Your task to perform on an android device: Add razer blackwidow to the cart on bestbuy Image 0: 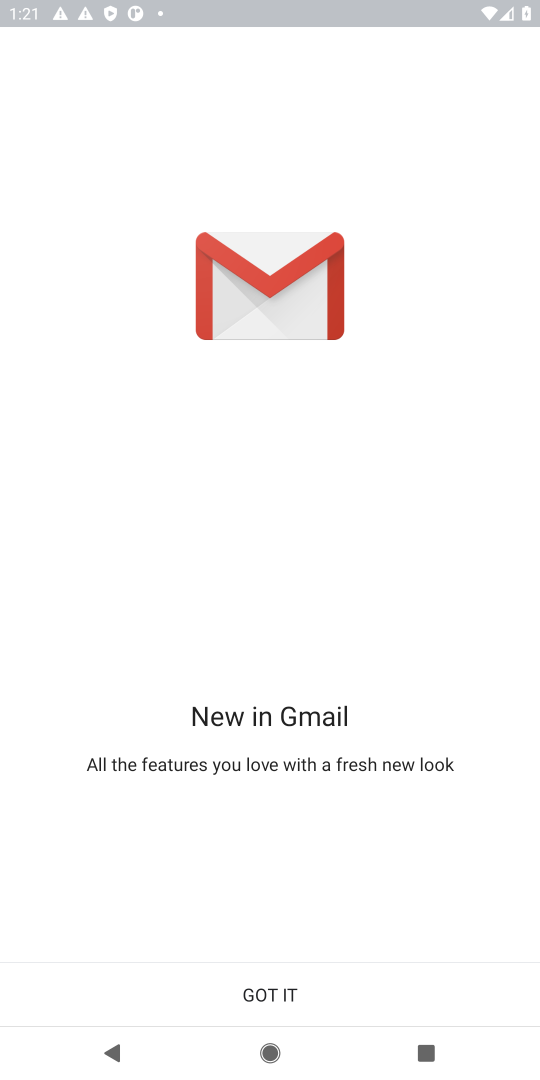
Step 0: press home button
Your task to perform on an android device: Add razer blackwidow to the cart on bestbuy Image 1: 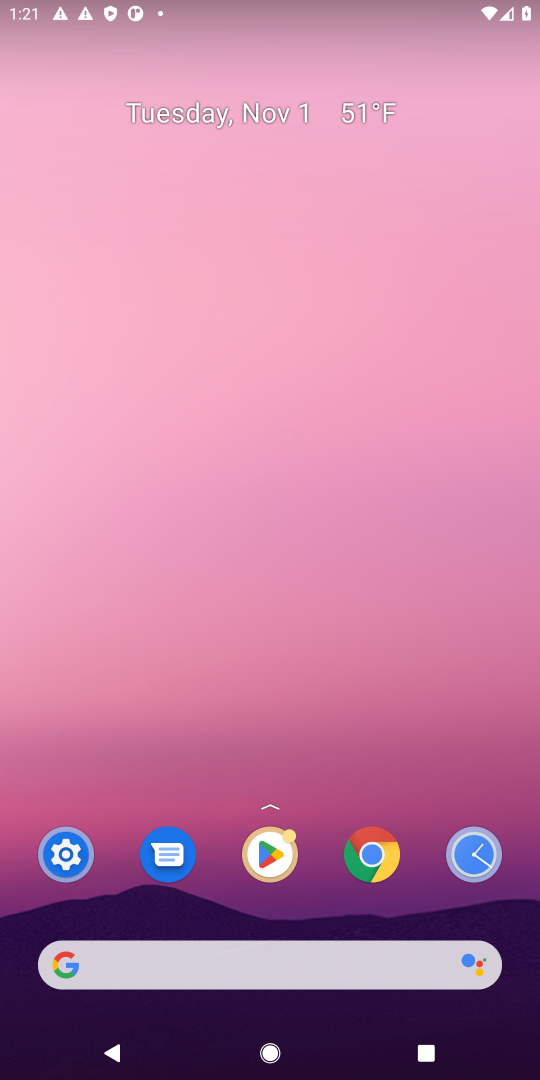
Step 1: click (191, 951)
Your task to perform on an android device: Add razer blackwidow to the cart on bestbuy Image 2: 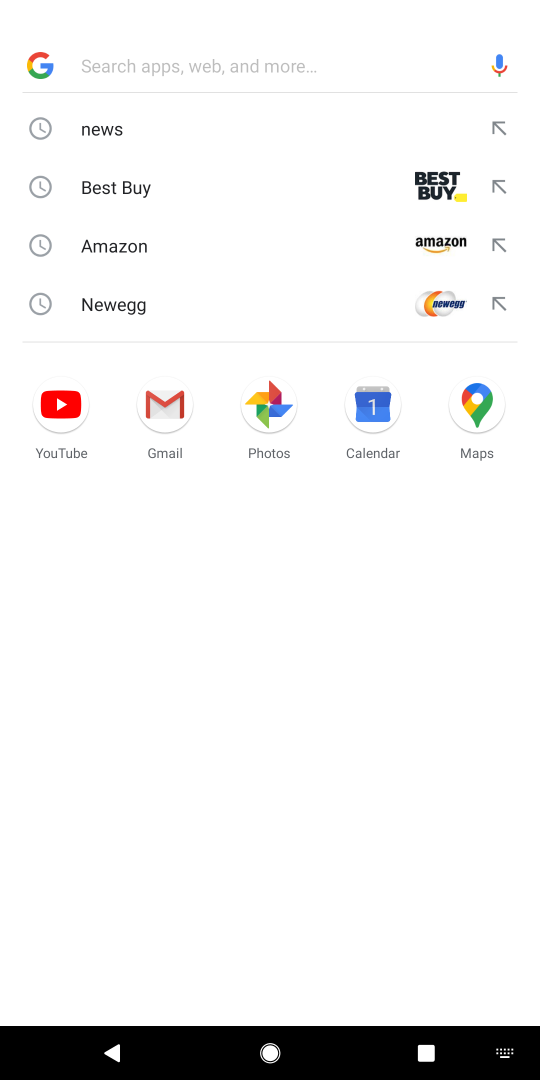
Step 2: type "bestbuy"
Your task to perform on an android device: Add razer blackwidow to the cart on bestbuy Image 3: 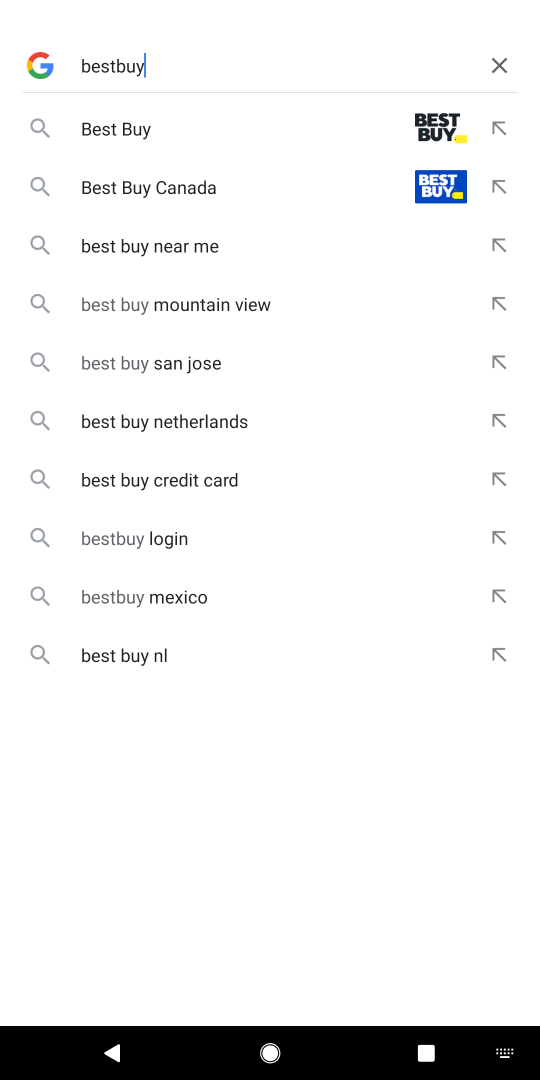
Step 3: click (122, 126)
Your task to perform on an android device: Add razer blackwidow to the cart on bestbuy Image 4: 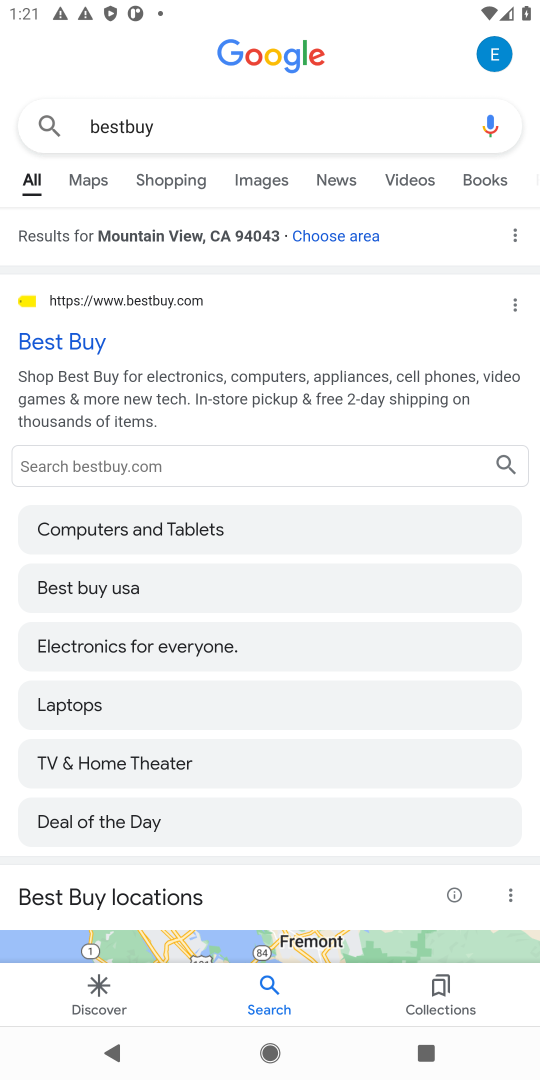
Step 4: click (66, 334)
Your task to perform on an android device: Add razer blackwidow to the cart on bestbuy Image 5: 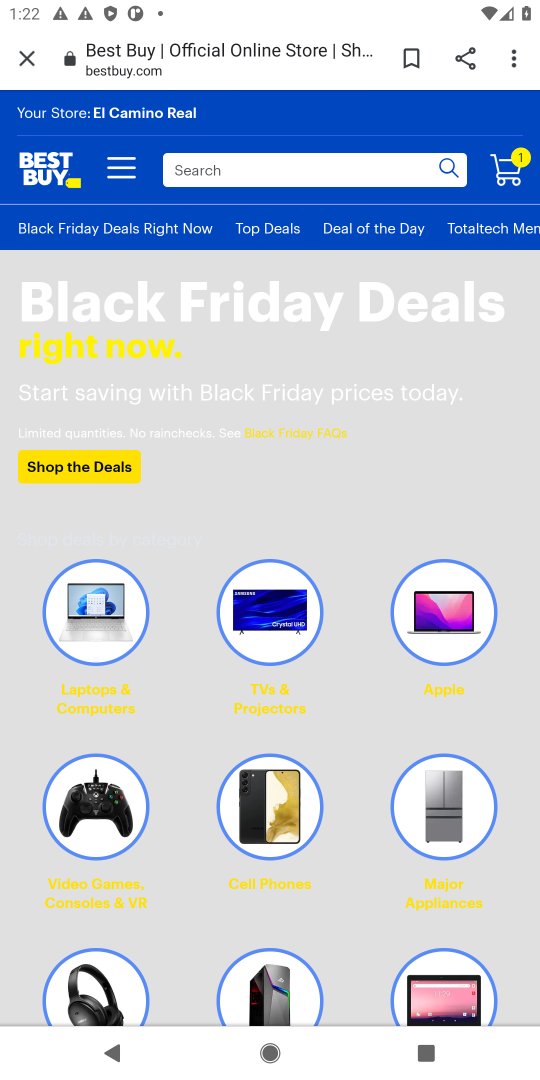
Step 5: click (313, 172)
Your task to perform on an android device: Add razer blackwidow to the cart on bestbuy Image 6: 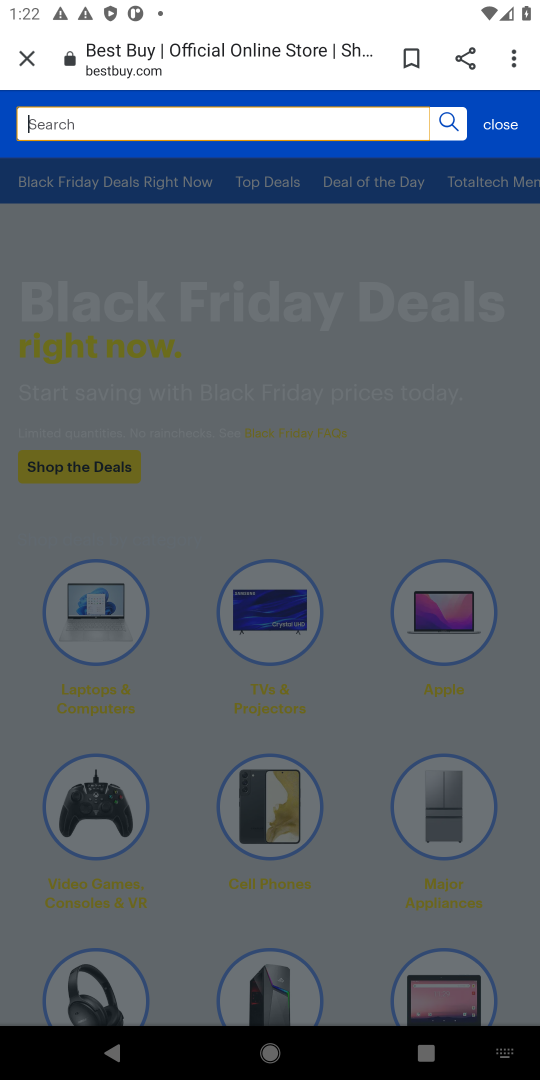
Step 6: type "razer blackwi"
Your task to perform on an android device: Add razer blackwidow to the cart on bestbuy Image 7: 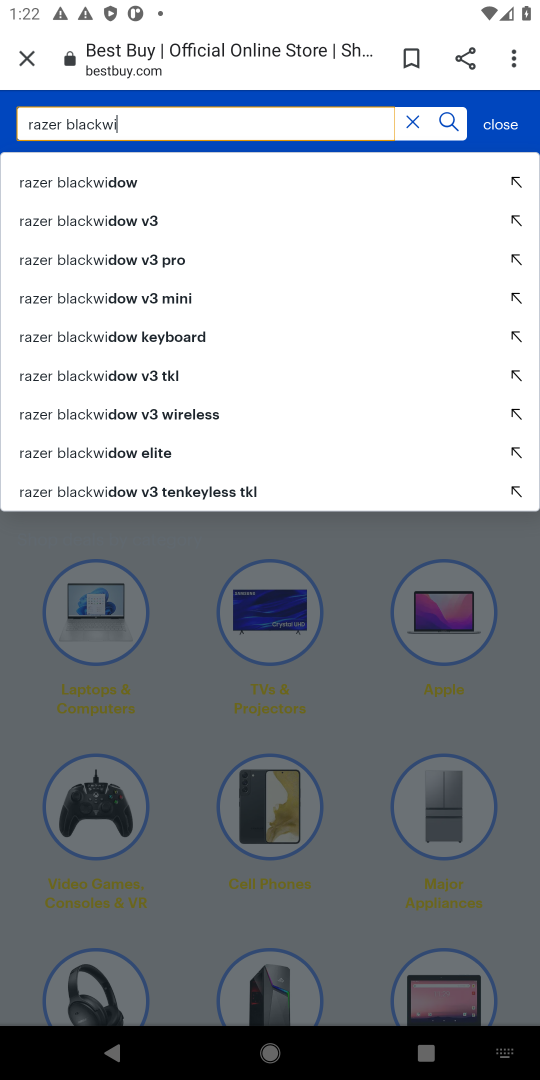
Step 7: click (119, 185)
Your task to perform on an android device: Add razer blackwidow to the cart on bestbuy Image 8: 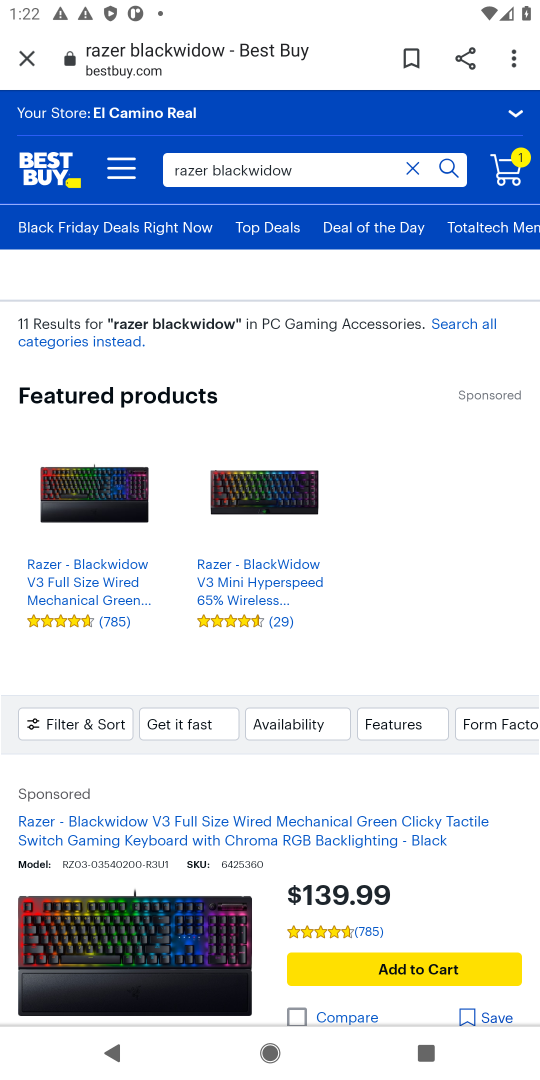
Step 8: drag from (389, 775) to (379, 597)
Your task to perform on an android device: Add razer blackwidow to the cart on bestbuy Image 9: 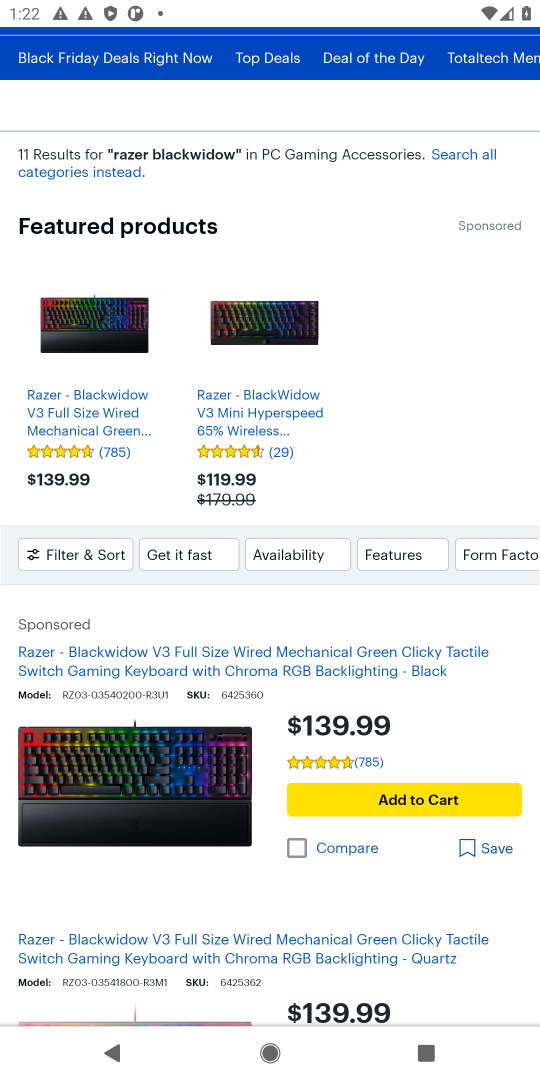
Step 9: click (386, 801)
Your task to perform on an android device: Add razer blackwidow to the cart on bestbuy Image 10: 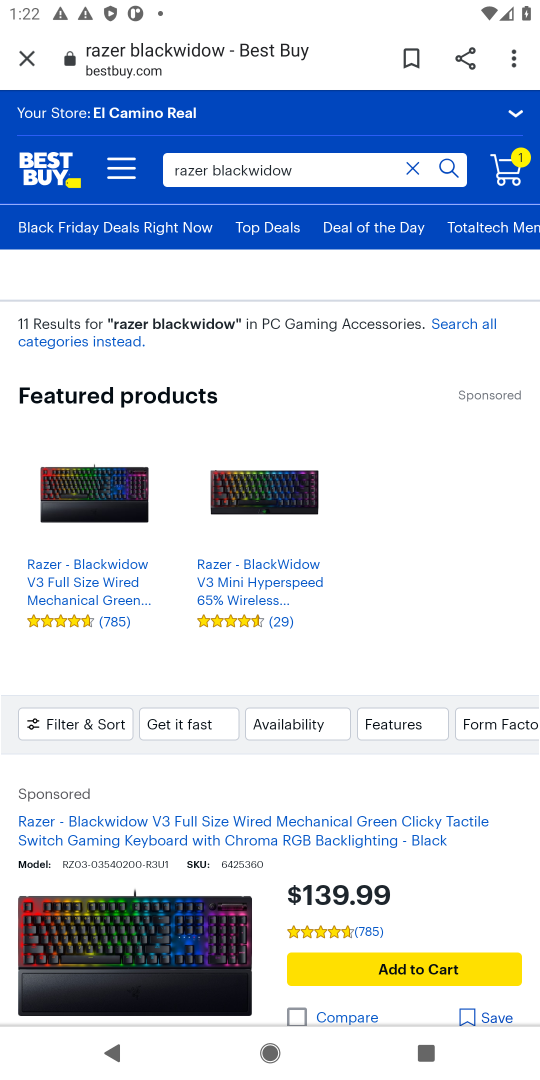
Step 10: click (517, 164)
Your task to perform on an android device: Add razer blackwidow to the cart on bestbuy Image 11: 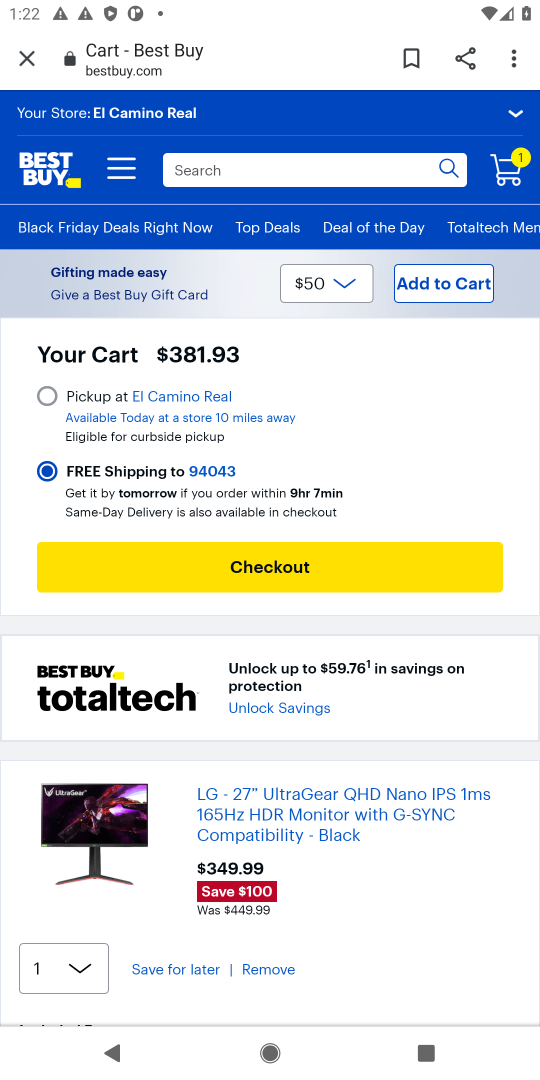
Step 11: task complete